Your task to perform on an android device: turn on showing notifications on the lock screen Image 0: 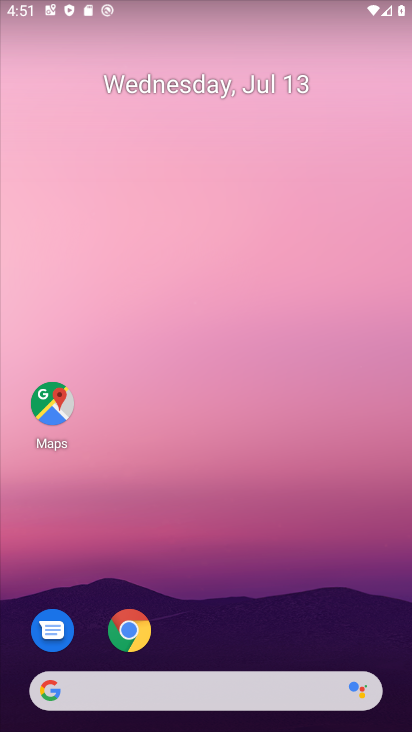
Step 0: drag from (180, 693) to (249, 184)
Your task to perform on an android device: turn on showing notifications on the lock screen Image 1: 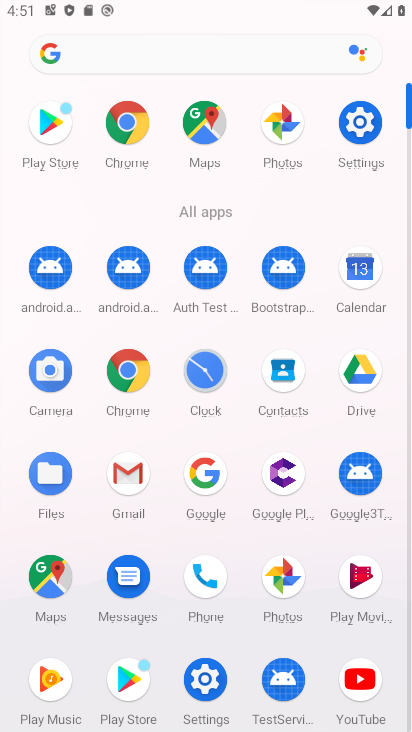
Step 1: click (198, 677)
Your task to perform on an android device: turn on showing notifications on the lock screen Image 2: 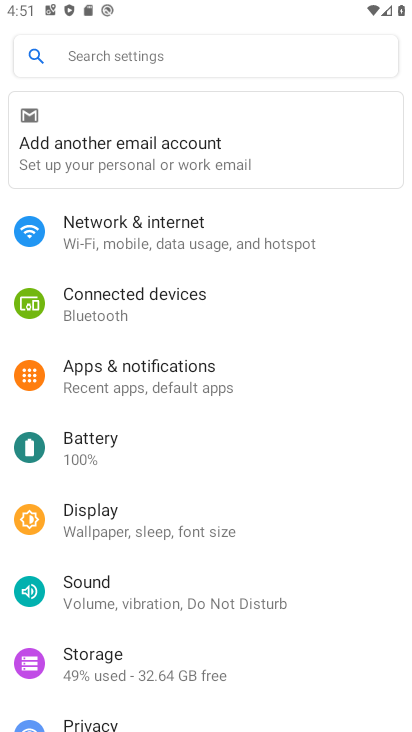
Step 2: drag from (92, 657) to (195, 380)
Your task to perform on an android device: turn on showing notifications on the lock screen Image 3: 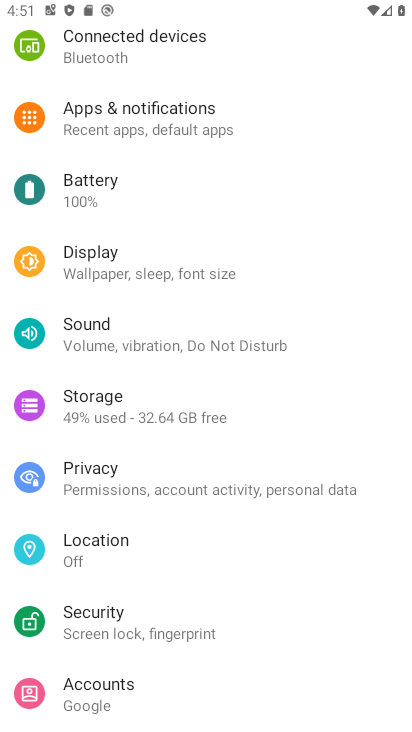
Step 3: click (178, 121)
Your task to perform on an android device: turn on showing notifications on the lock screen Image 4: 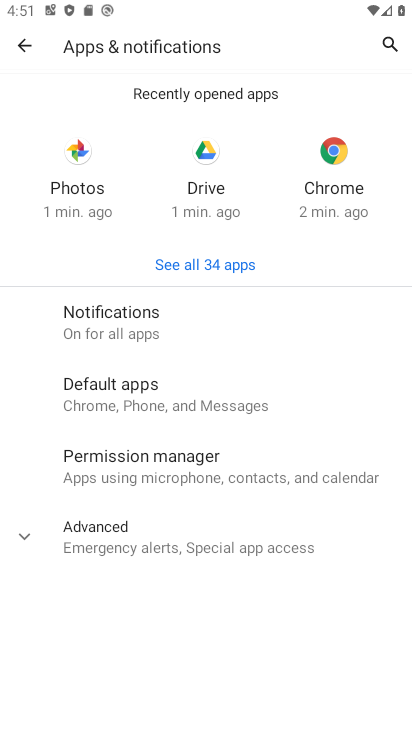
Step 4: click (122, 333)
Your task to perform on an android device: turn on showing notifications on the lock screen Image 5: 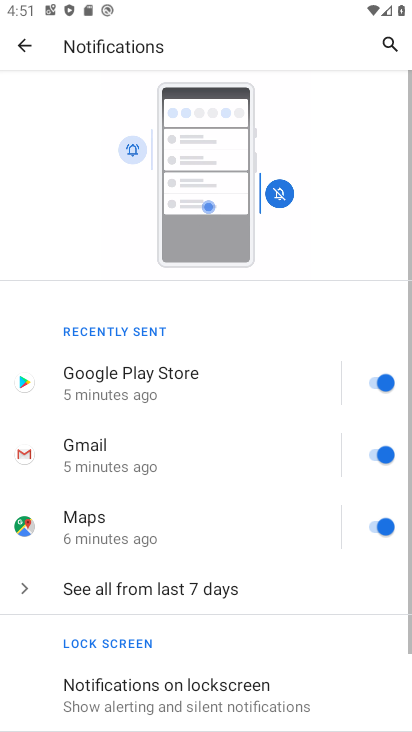
Step 5: drag from (172, 619) to (280, 295)
Your task to perform on an android device: turn on showing notifications on the lock screen Image 6: 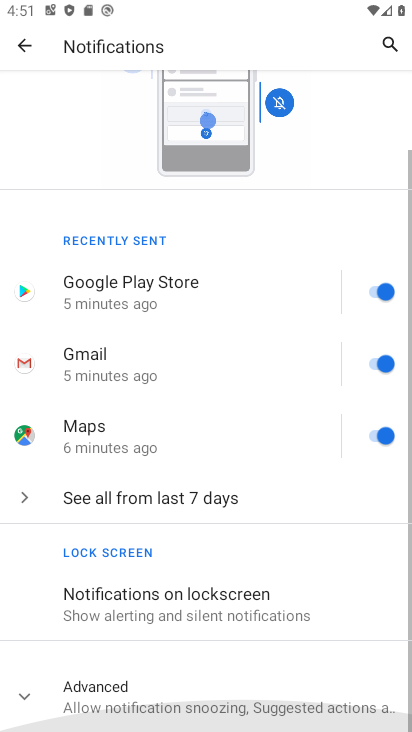
Step 6: click (236, 598)
Your task to perform on an android device: turn on showing notifications on the lock screen Image 7: 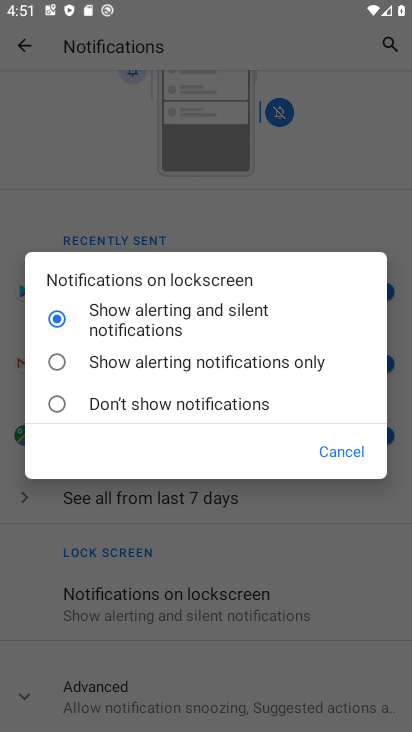
Step 7: task complete